Your task to perform on an android device: Open calendar and show me the fourth week of next month Image 0: 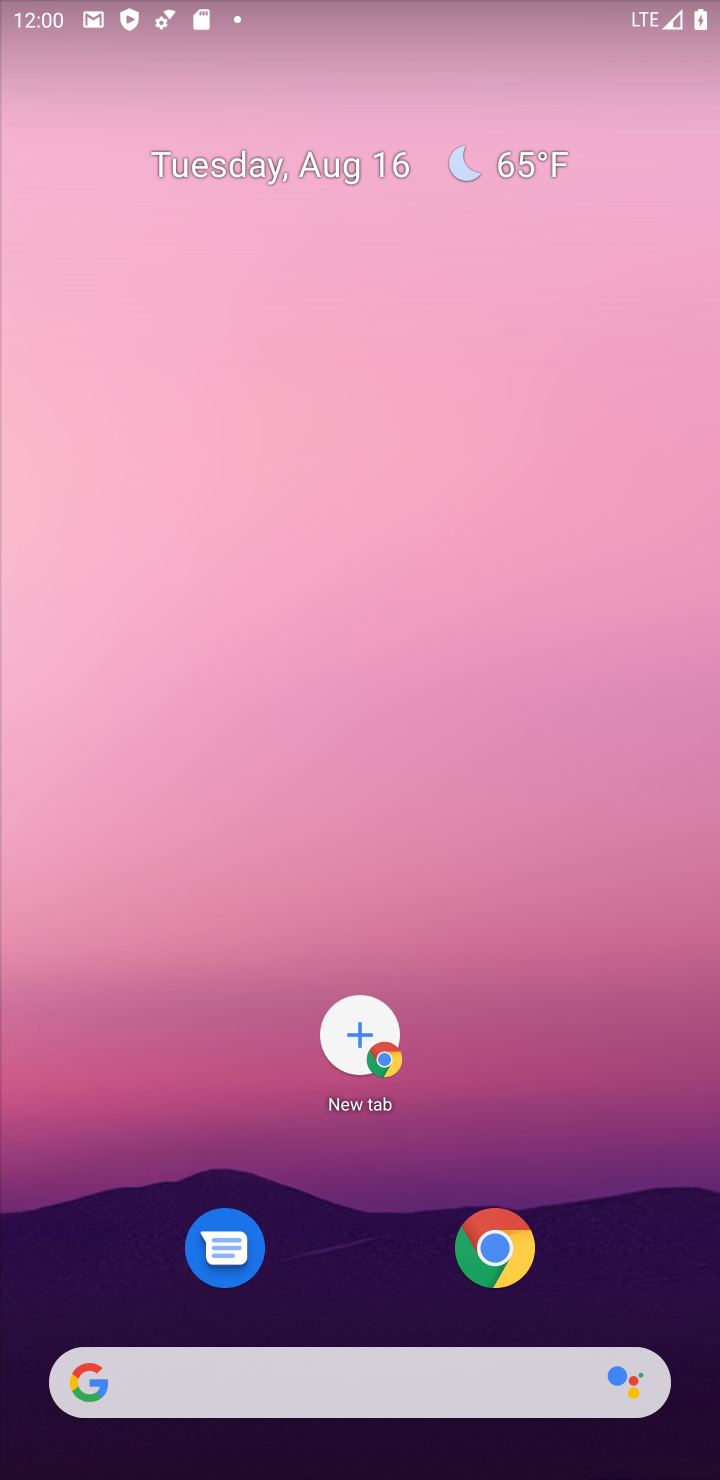
Step 0: drag from (364, 1093) to (312, 8)
Your task to perform on an android device: Open calendar and show me the fourth week of next month Image 1: 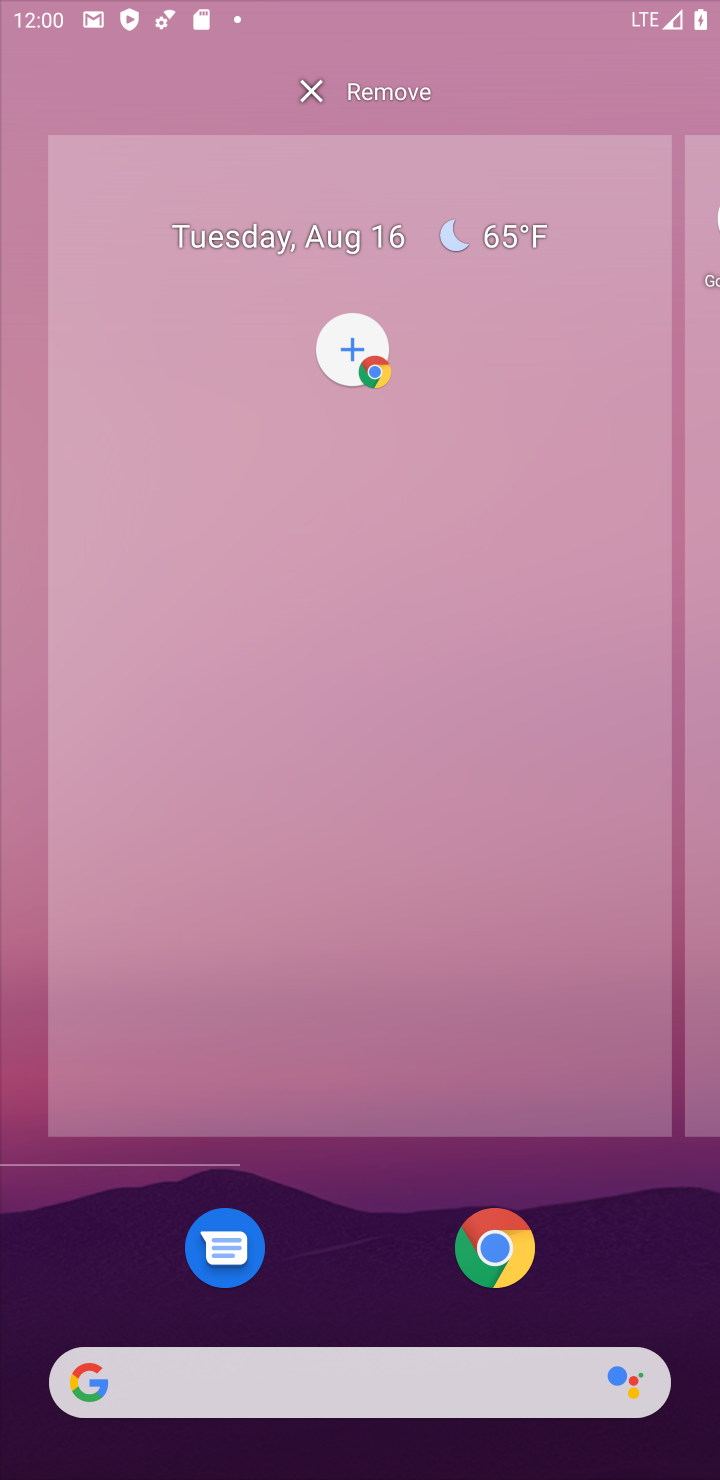
Step 1: drag from (342, 1281) to (408, 149)
Your task to perform on an android device: Open calendar and show me the fourth week of next month Image 2: 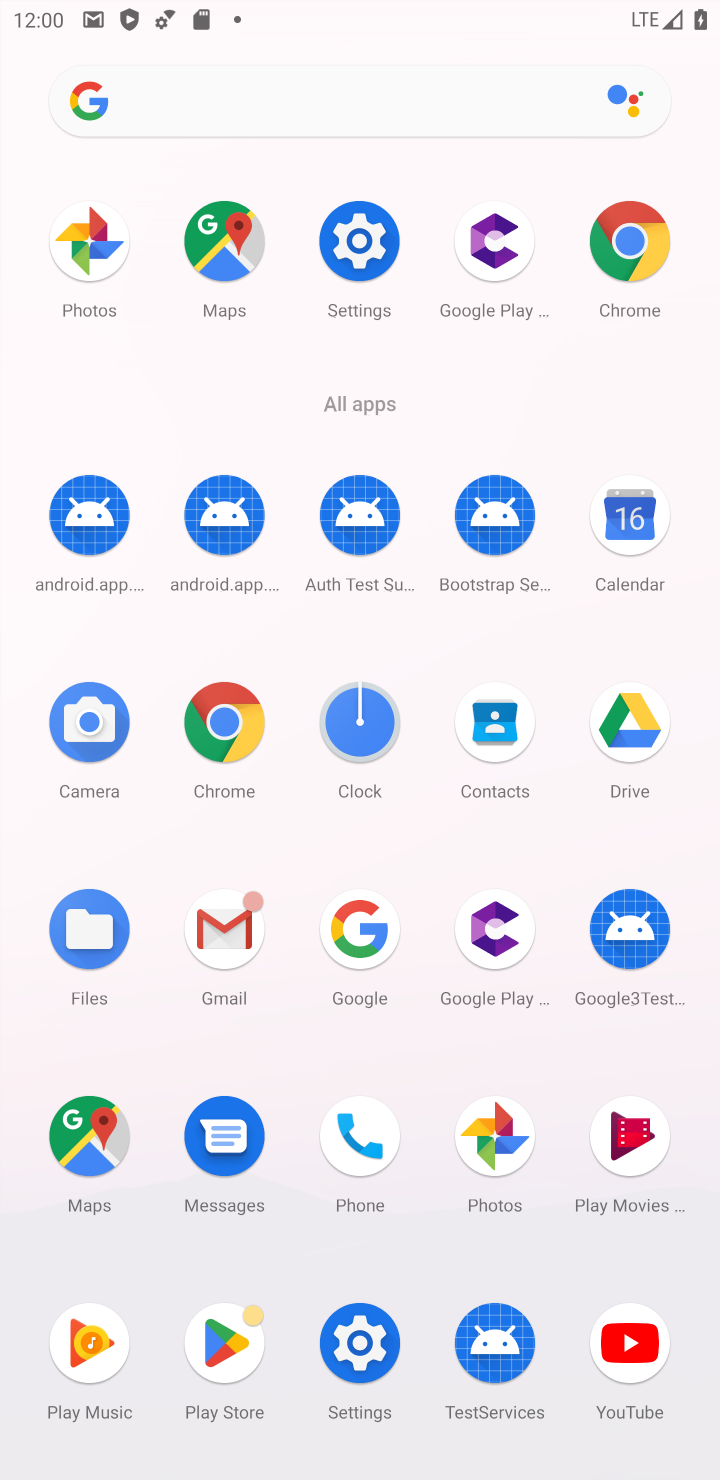
Step 2: click (628, 567)
Your task to perform on an android device: Open calendar and show me the fourth week of next month Image 3: 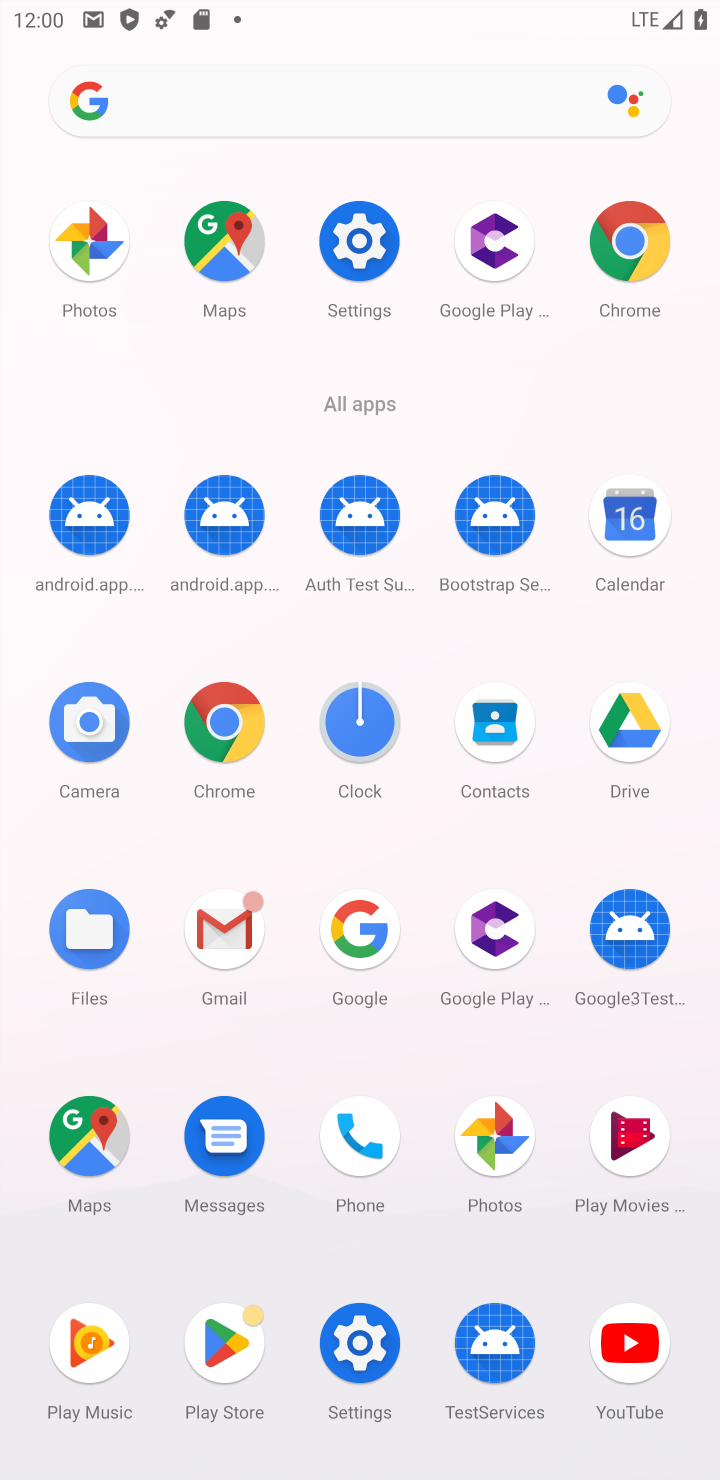
Step 3: task complete